Your task to perform on an android device: Clear the shopping cart on walmart. Image 0: 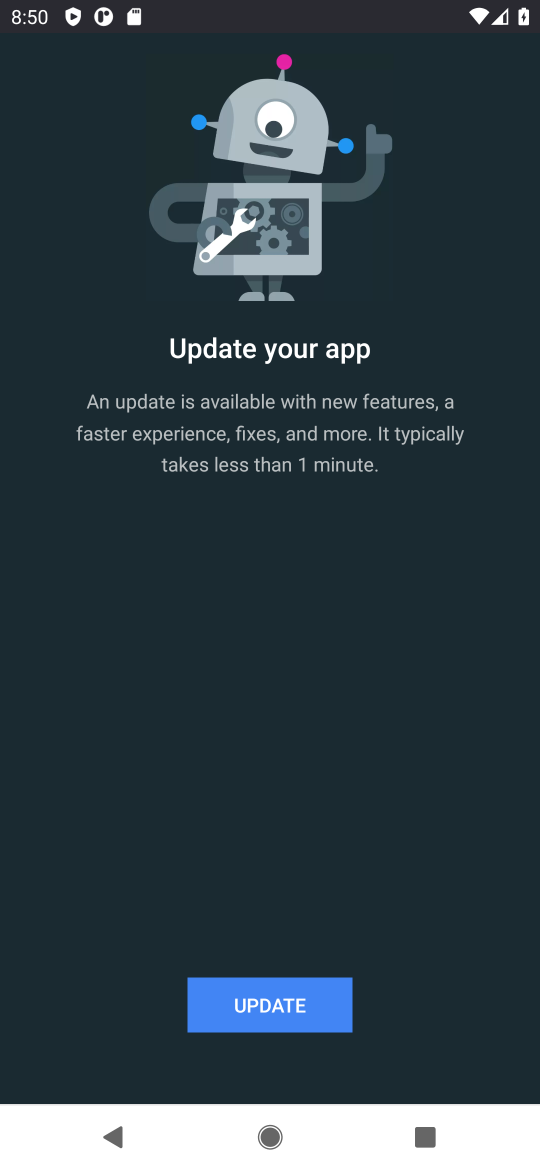
Step 0: press home button
Your task to perform on an android device: Clear the shopping cart on walmart. Image 1: 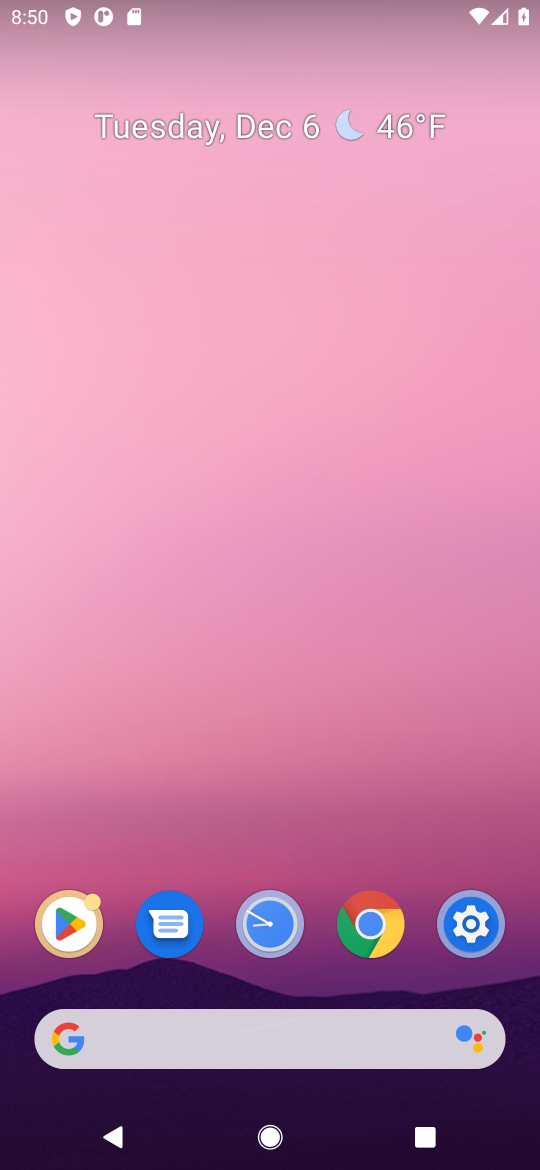
Step 1: click (175, 1036)
Your task to perform on an android device: Clear the shopping cart on walmart. Image 2: 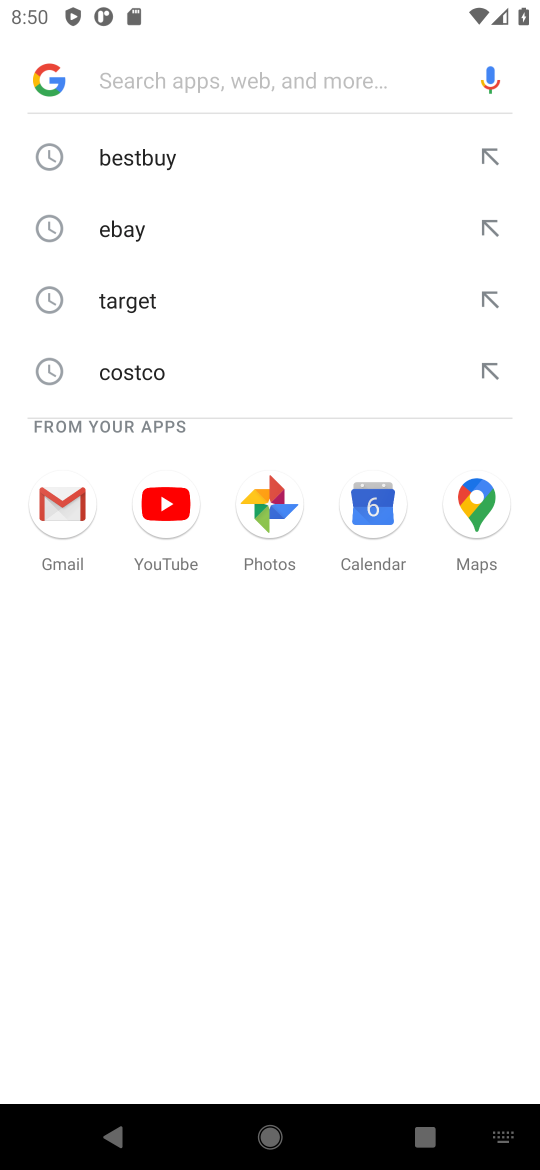
Step 2: type "walmart"
Your task to perform on an android device: Clear the shopping cart on walmart. Image 3: 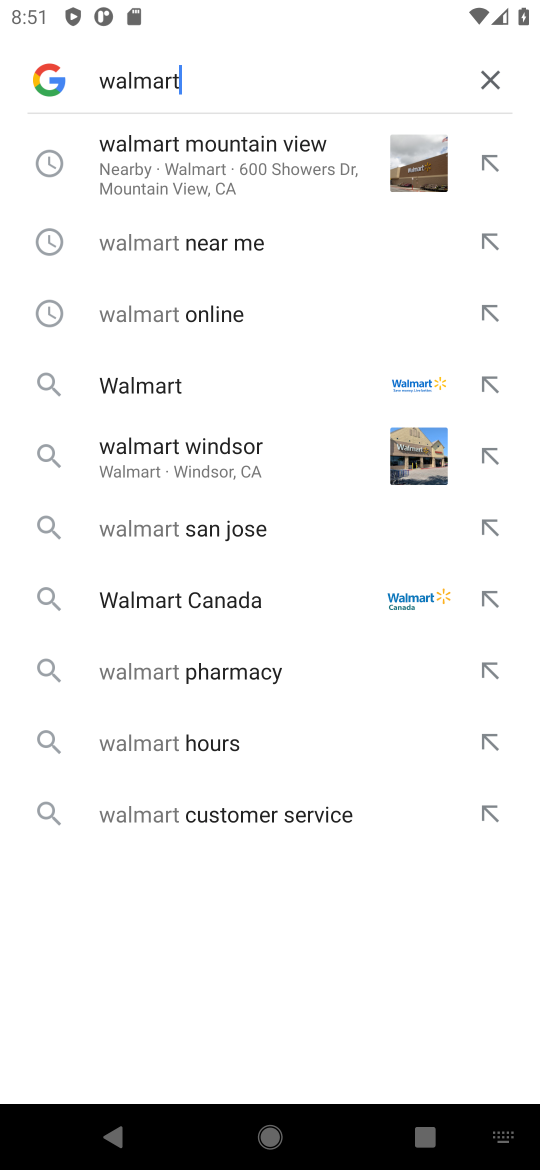
Step 3: click (104, 173)
Your task to perform on an android device: Clear the shopping cart on walmart. Image 4: 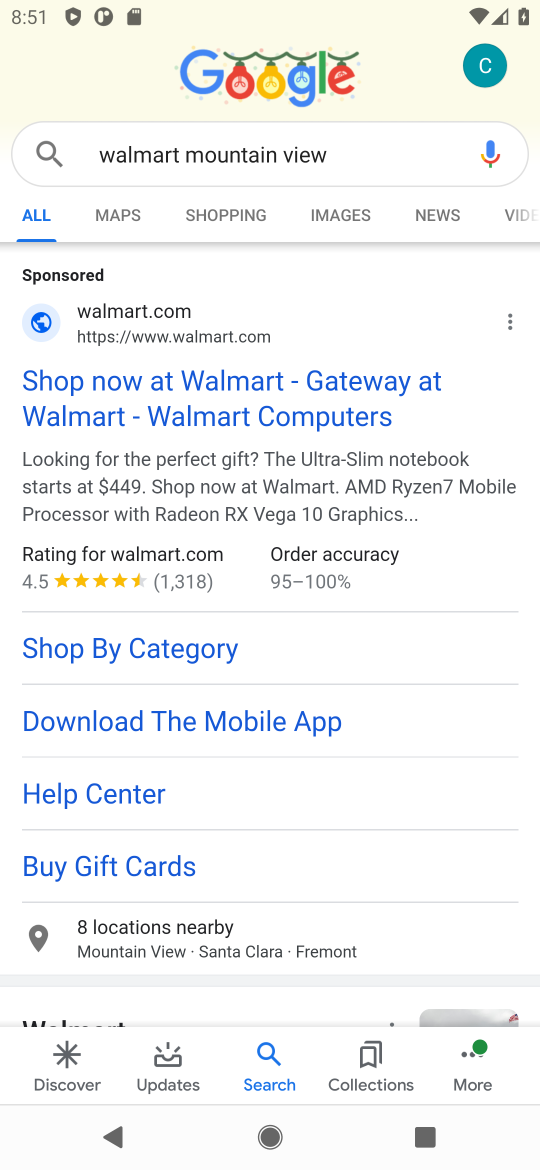
Step 4: click (310, 390)
Your task to perform on an android device: Clear the shopping cart on walmart. Image 5: 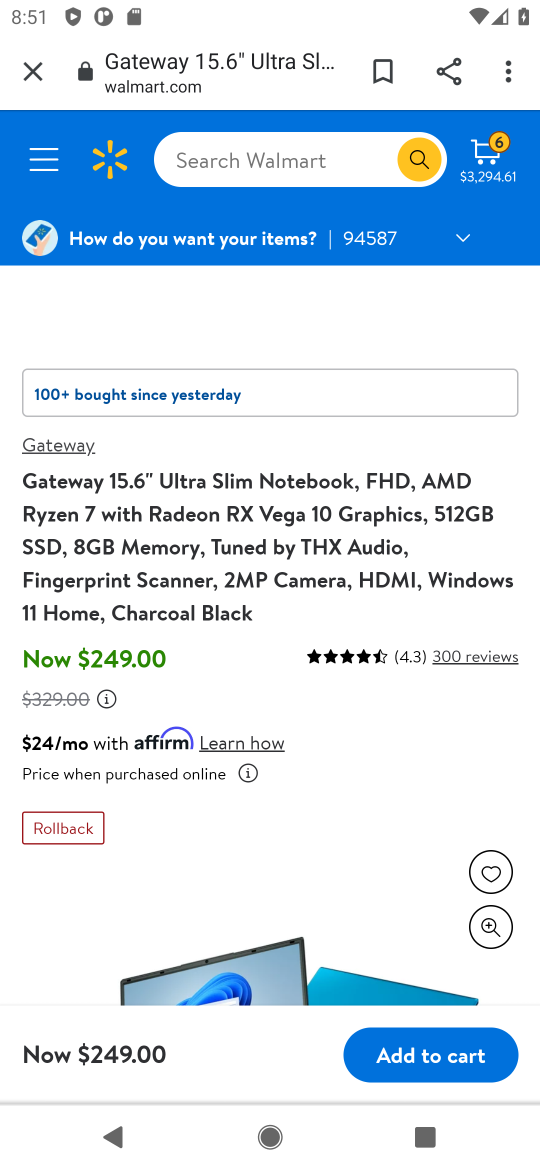
Step 5: click (211, 161)
Your task to perform on an android device: Clear the shopping cart on walmart. Image 6: 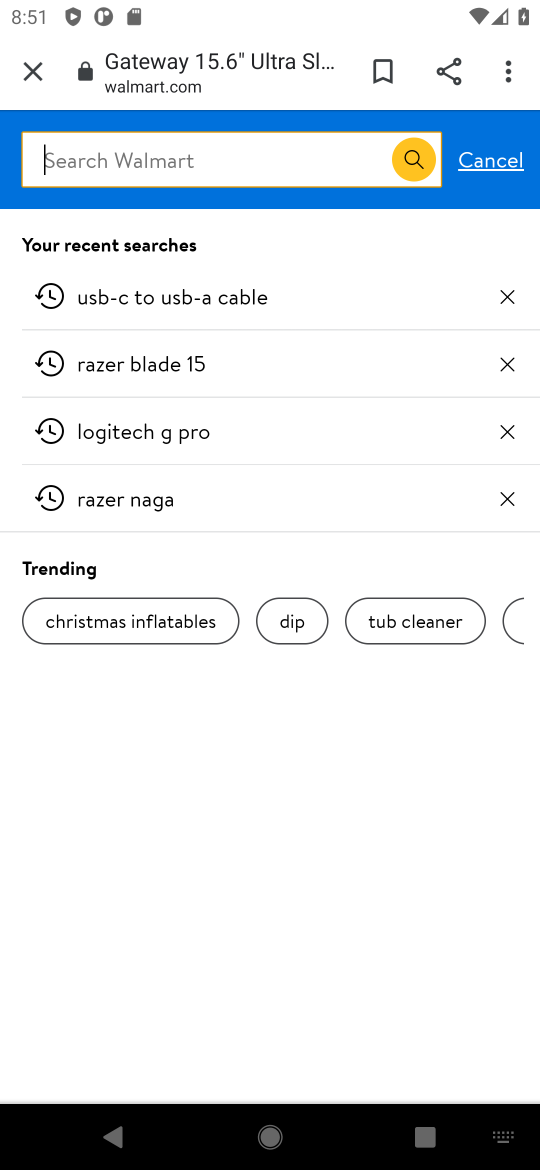
Step 6: click (510, 148)
Your task to perform on an android device: Clear the shopping cart on walmart. Image 7: 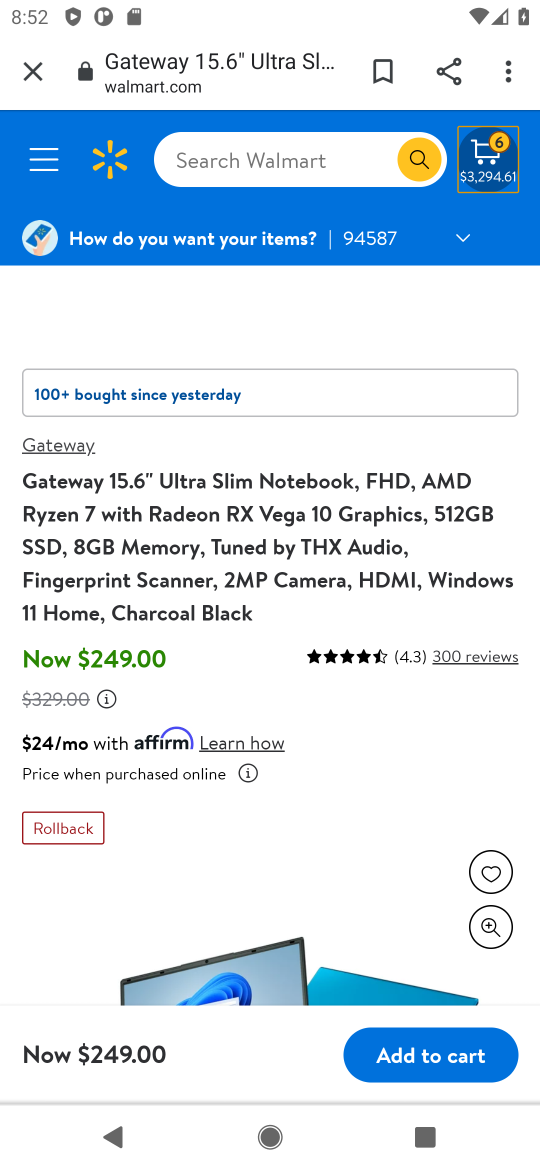
Step 7: task complete